Your task to perform on an android device: delete a single message in the gmail app Image 0: 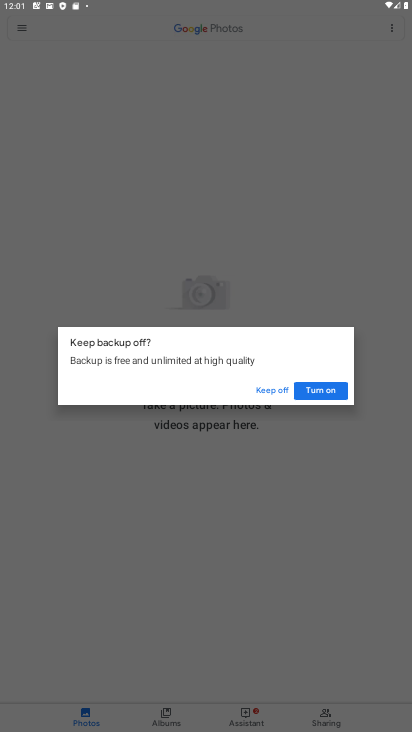
Step 0: press home button
Your task to perform on an android device: delete a single message in the gmail app Image 1: 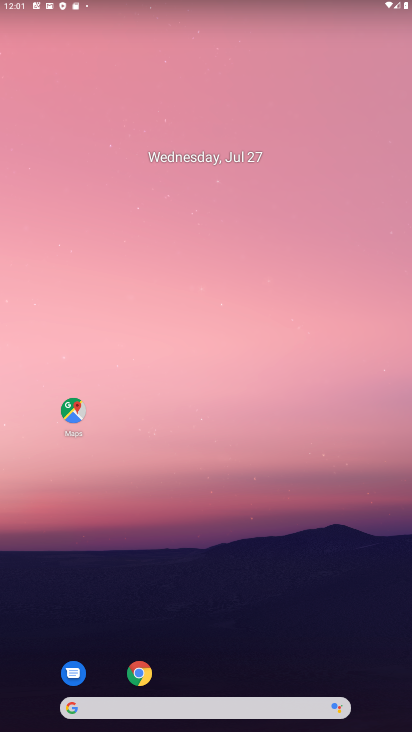
Step 1: drag from (204, 657) to (206, 304)
Your task to perform on an android device: delete a single message in the gmail app Image 2: 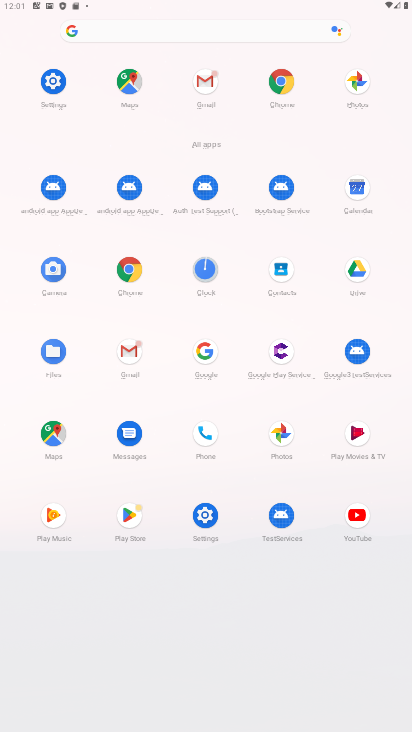
Step 2: click (136, 343)
Your task to perform on an android device: delete a single message in the gmail app Image 3: 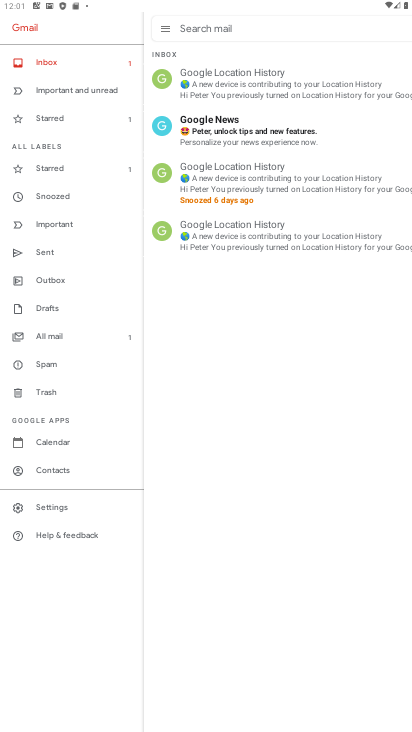
Step 3: click (239, 69)
Your task to perform on an android device: delete a single message in the gmail app Image 4: 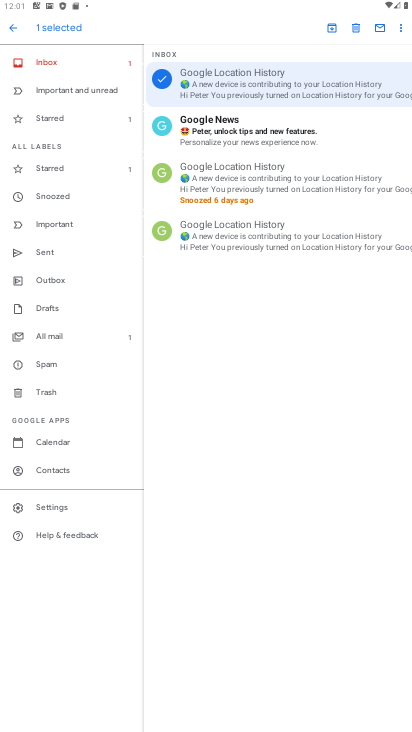
Step 4: click (353, 26)
Your task to perform on an android device: delete a single message in the gmail app Image 5: 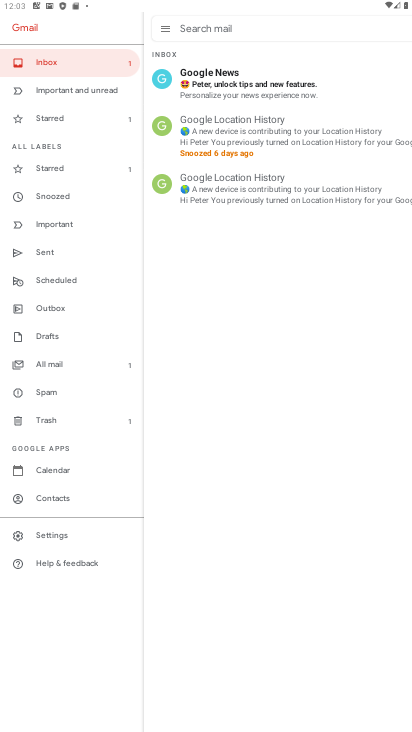
Step 5: task complete